Your task to perform on an android device: turn on showing notifications on the lock screen Image 0: 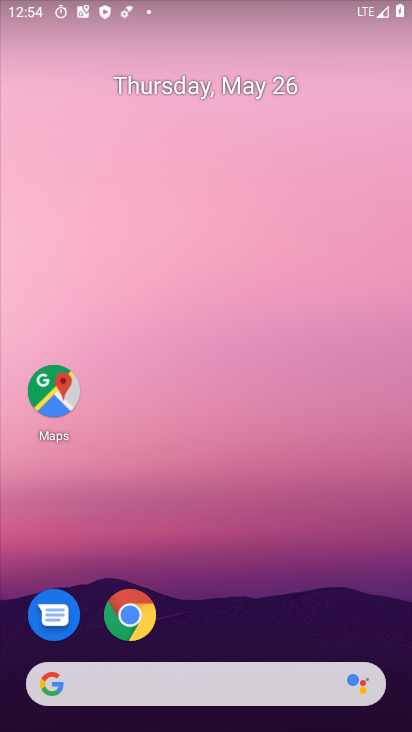
Step 0: drag from (205, 632) to (163, 241)
Your task to perform on an android device: turn on showing notifications on the lock screen Image 1: 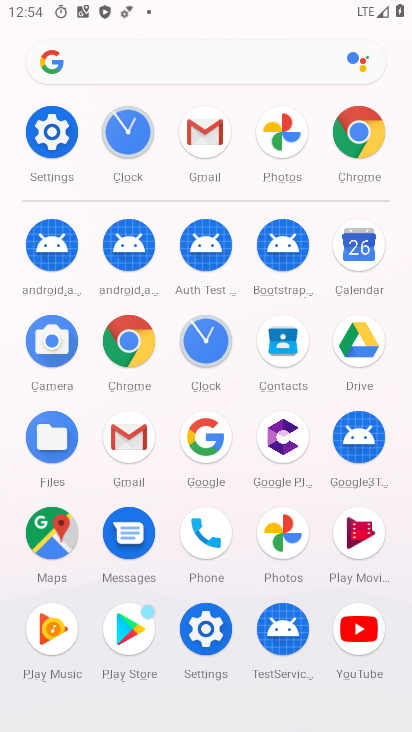
Step 1: click (52, 126)
Your task to perform on an android device: turn on showing notifications on the lock screen Image 2: 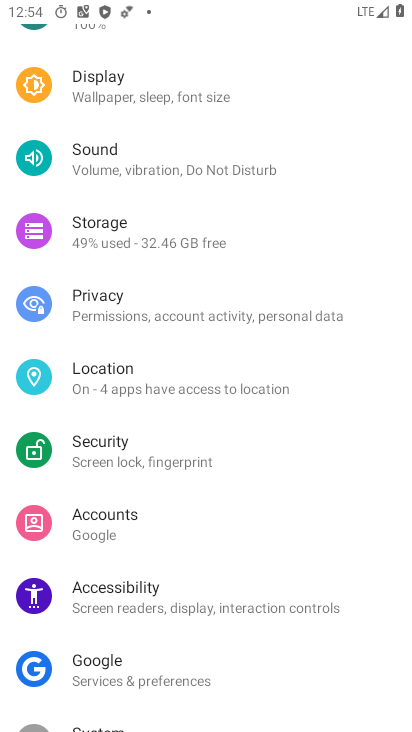
Step 2: drag from (149, 118) to (139, 401)
Your task to perform on an android device: turn on showing notifications on the lock screen Image 3: 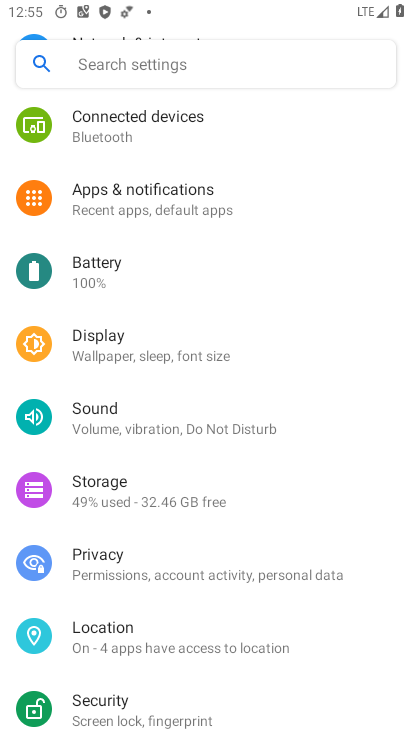
Step 3: click (124, 213)
Your task to perform on an android device: turn on showing notifications on the lock screen Image 4: 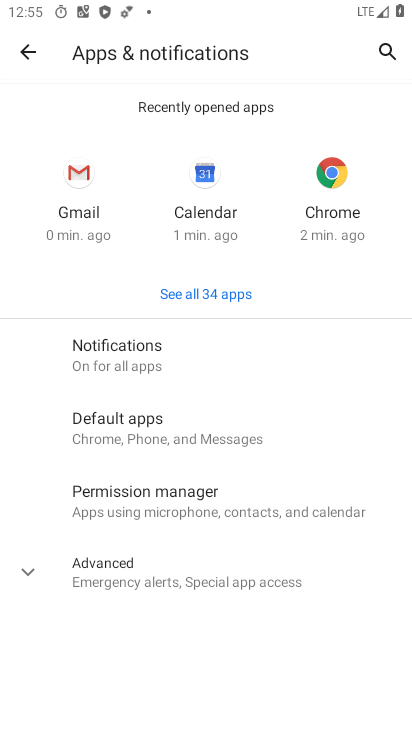
Step 4: click (163, 348)
Your task to perform on an android device: turn on showing notifications on the lock screen Image 5: 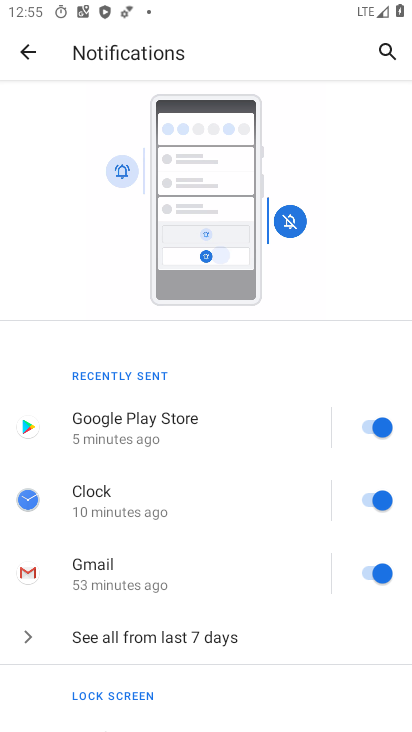
Step 5: drag from (220, 679) to (201, 33)
Your task to perform on an android device: turn on showing notifications on the lock screen Image 6: 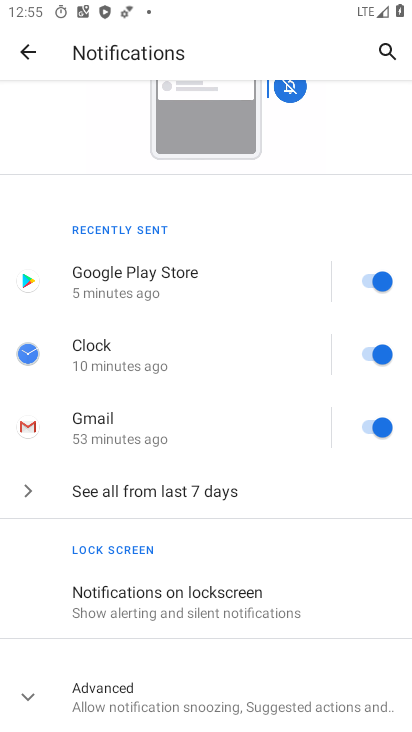
Step 6: click (204, 601)
Your task to perform on an android device: turn on showing notifications on the lock screen Image 7: 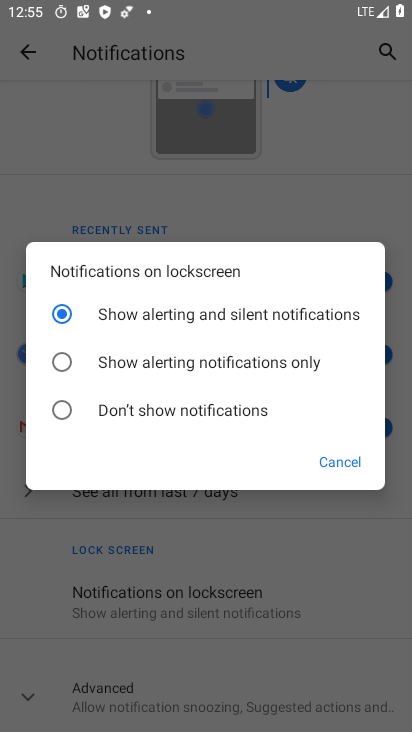
Step 7: task complete